Your task to perform on an android device: check android version Image 0: 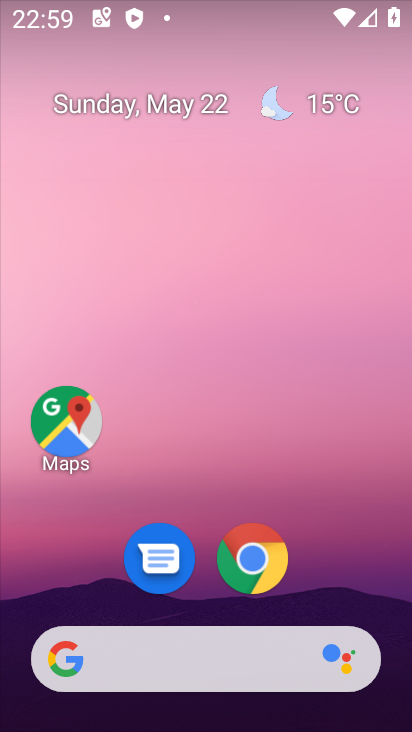
Step 0: drag from (341, 592) to (358, 14)
Your task to perform on an android device: check android version Image 1: 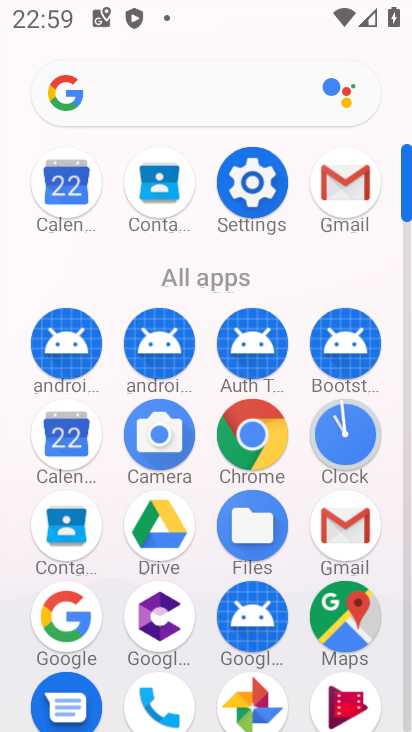
Step 1: click (253, 186)
Your task to perform on an android device: check android version Image 2: 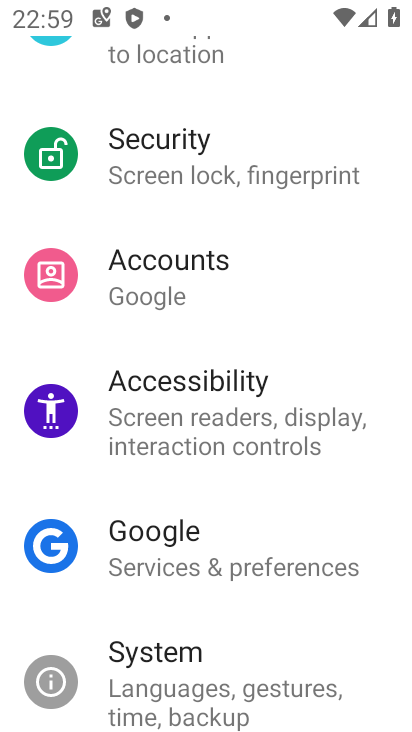
Step 2: drag from (257, 627) to (269, 175)
Your task to perform on an android device: check android version Image 3: 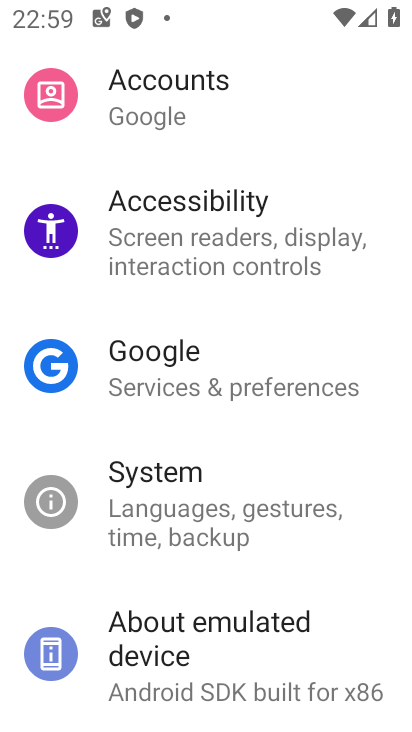
Step 3: click (205, 659)
Your task to perform on an android device: check android version Image 4: 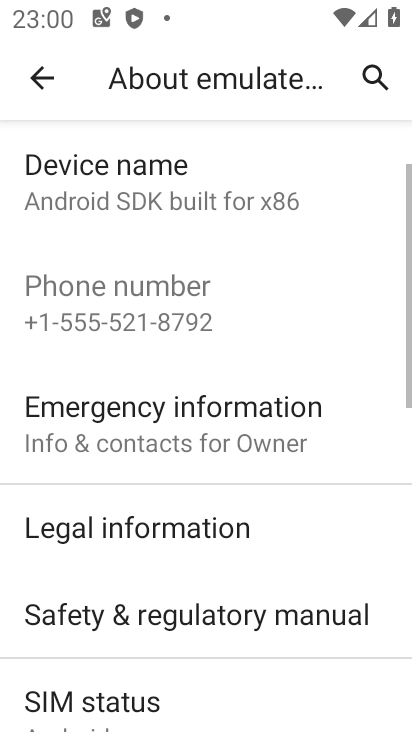
Step 4: drag from (217, 631) to (252, 195)
Your task to perform on an android device: check android version Image 5: 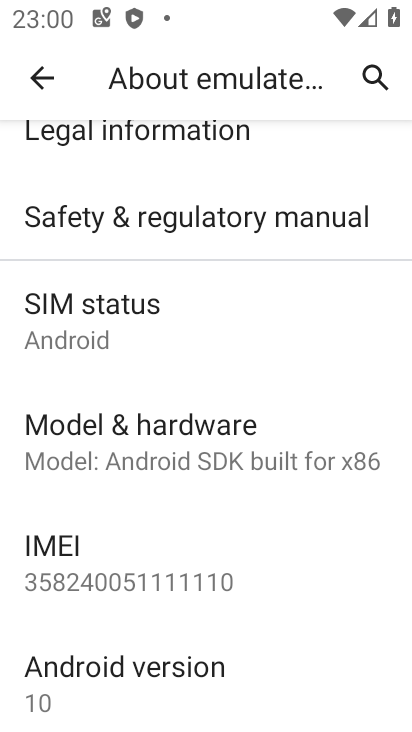
Step 5: drag from (184, 591) to (190, 272)
Your task to perform on an android device: check android version Image 6: 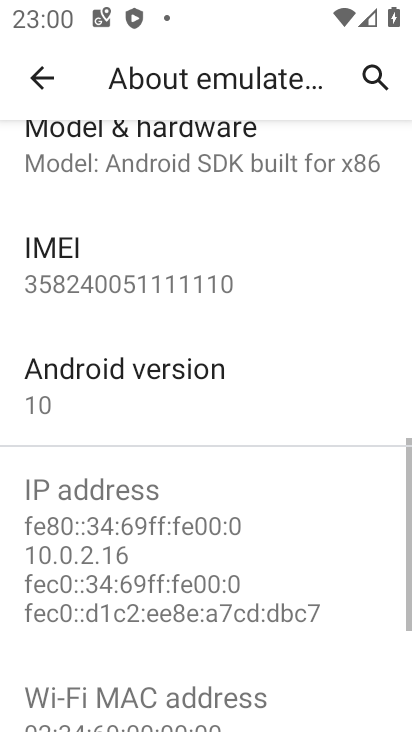
Step 6: click (107, 372)
Your task to perform on an android device: check android version Image 7: 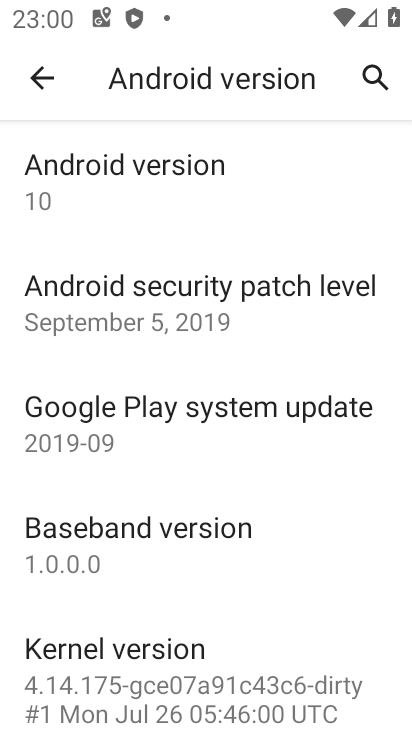
Step 7: task complete